Your task to perform on an android device: set the stopwatch Image 0: 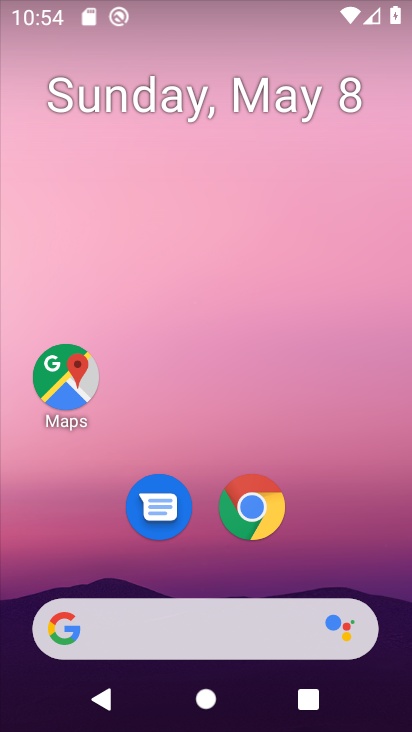
Step 0: drag from (207, 724) to (185, 188)
Your task to perform on an android device: set the stopwatch Image 1: 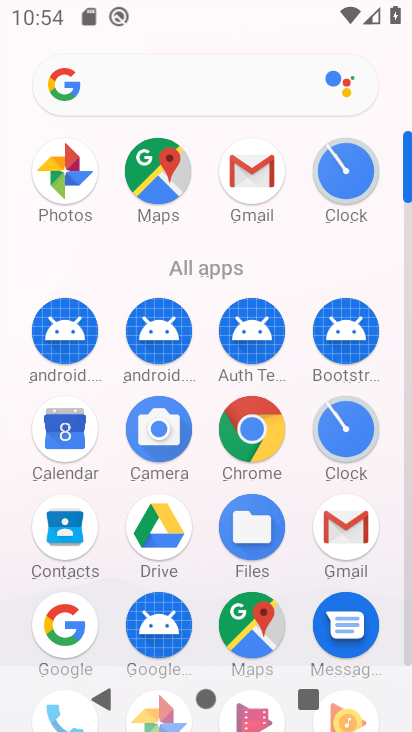
Step 1: click (345, 430)
Your task to perform on an android device: set the stopwatch Image 2: 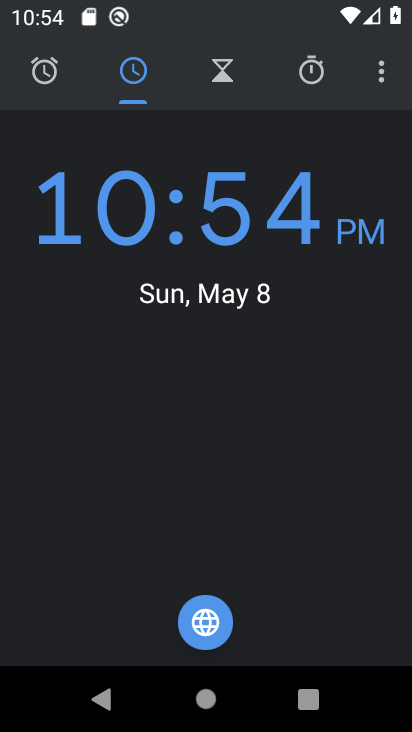
Step 2: click (310, 69)
Your task to perform on an android device: set the stopwatch Image 3: 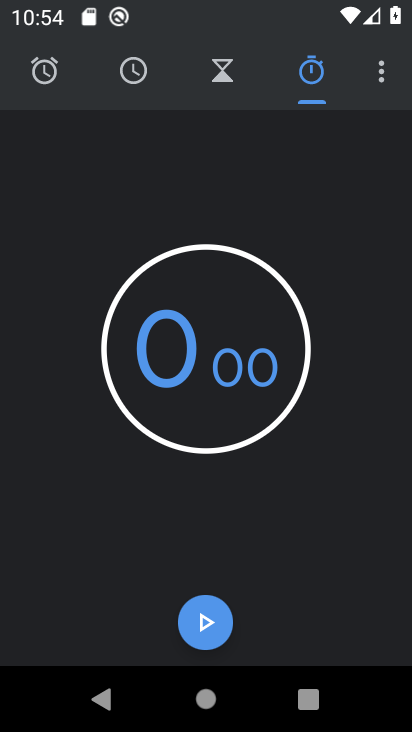
Step 3: click (239, 358)
Your task to perform on an android device: set the stopwatch Image 4: 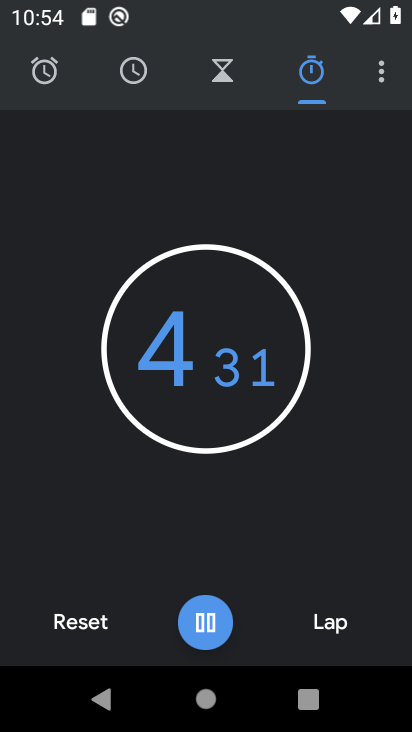
Step 4: type "8765"
Your task to perform on an android device: set the stopwatch Image 5: 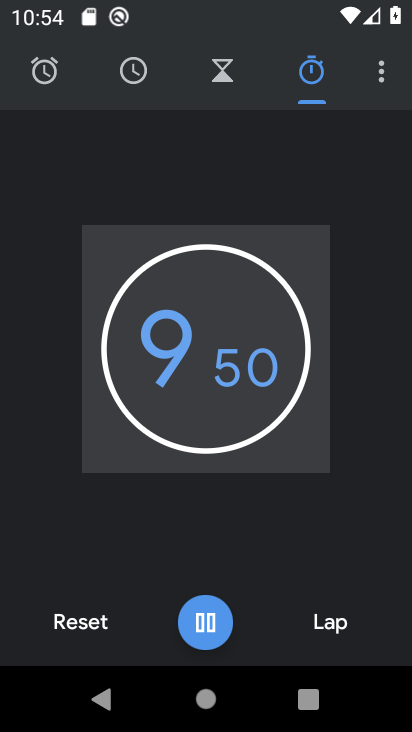
Step 5: task complete